Your task to perform on an android device: Open sound settings Image 0: 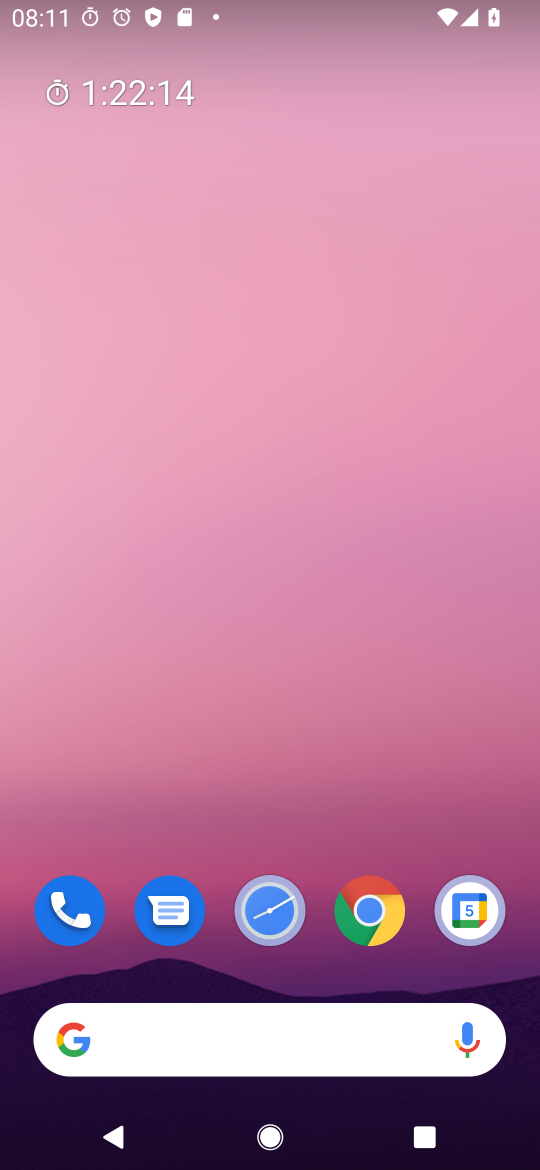
Step 0: drag from (304, 1056) to (216, 11)
Your task to perform on an android device: Open sound settings Image 1: 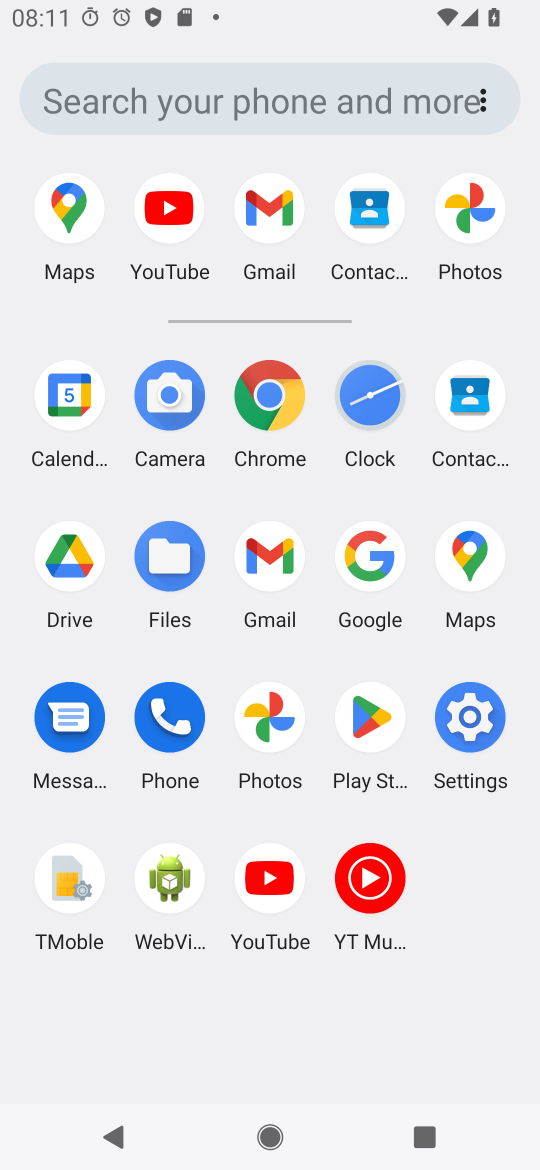
Step 1: click (469, 711)
Your task to perform on an android device: Open sound settings Image 2: 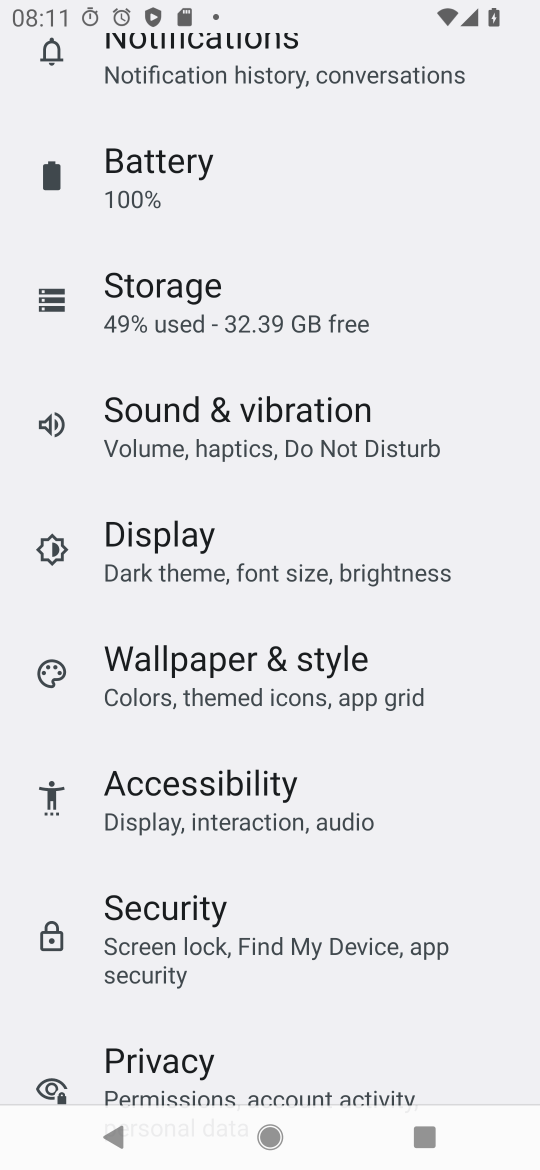
Step 2: drag from (306, 281) to (309, 867)
Your task to perform on an android device: Open sound settings Image 3: 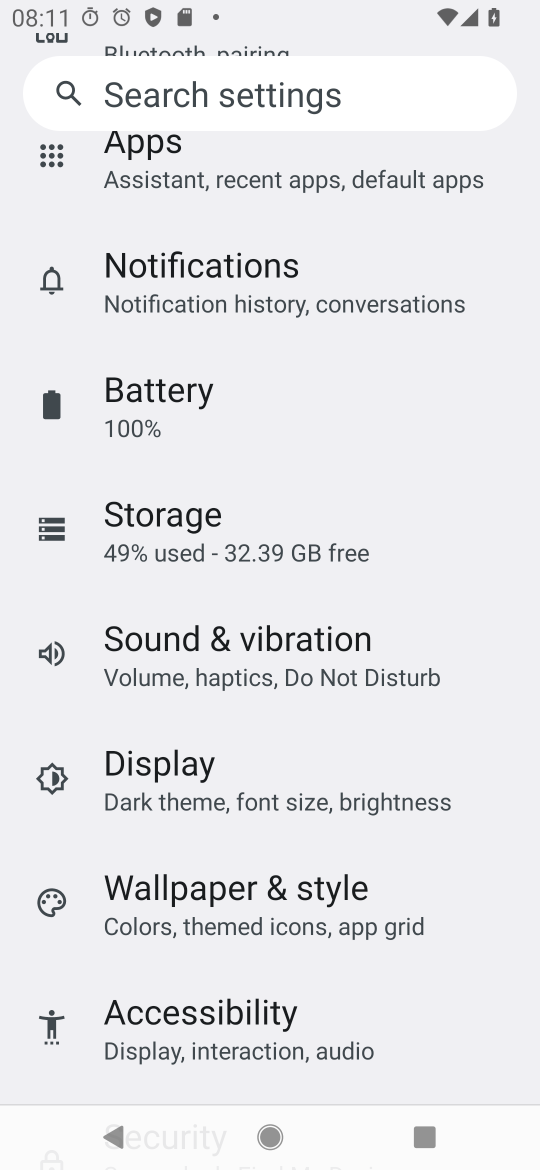
Step 3: click (282, 657)
Your task to perform on an android device: Open sound settings Image 4: 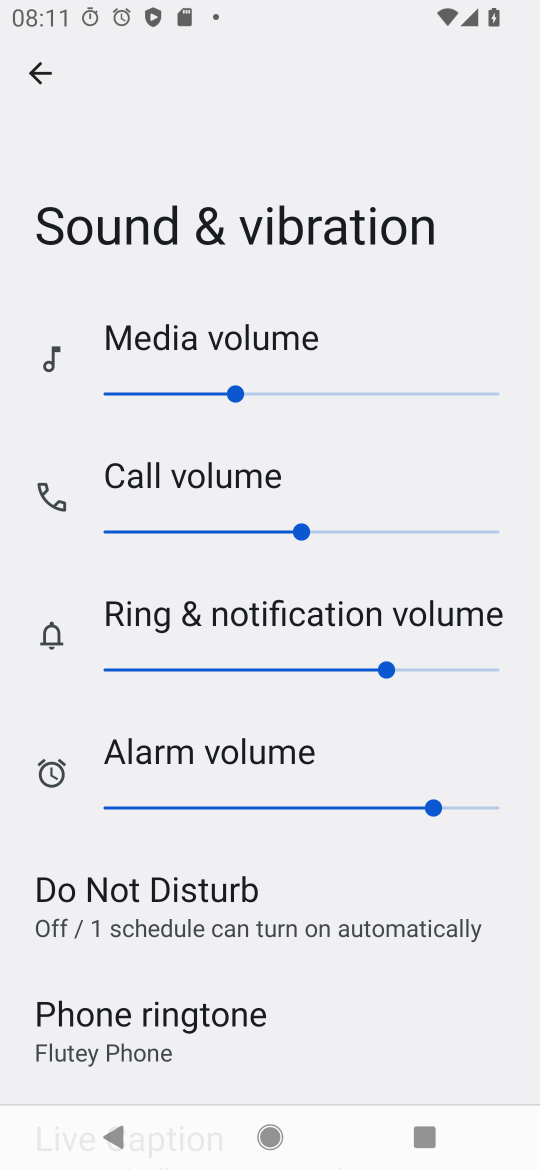
Step 4: task complete